Your task to perform on an android device: install app "Speedtest by Ookla" Image 0: 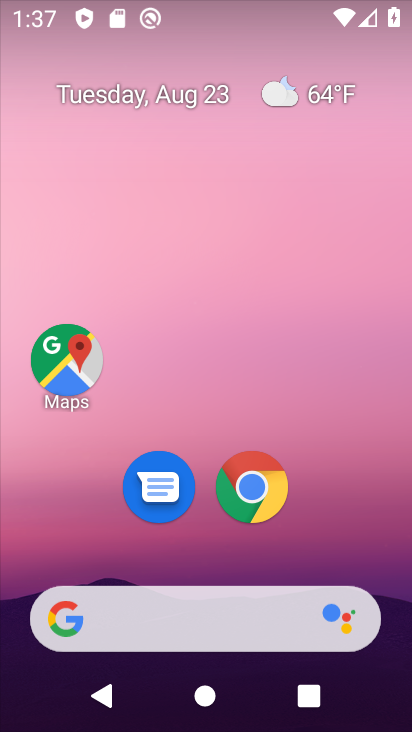
Step 0: drag from (179, 489) to (179, 50)
Your task to perform on an android device: install app "Speedtest by Ookla" Image 1: 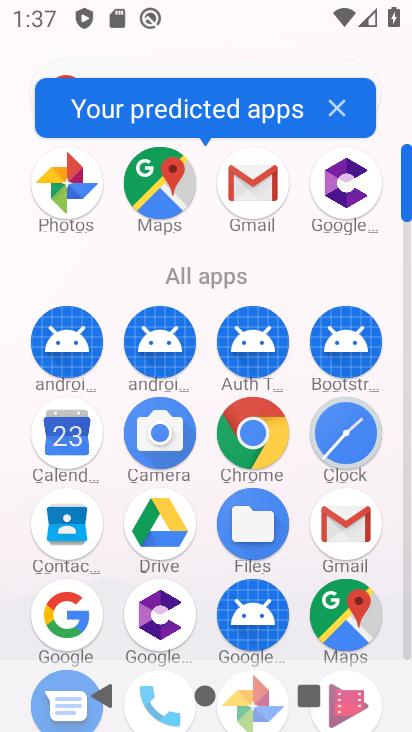
Step 1: drag from (192, 578) to (183, 179)
Your task to perform on an android device: install app "Speedtest by Ookla" Image 2: 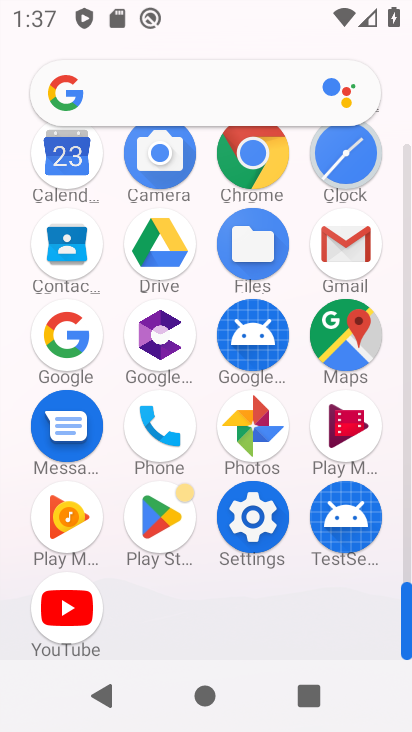
Step 2: click (160, 517)
Your task to perform on an android device: install app "Speedtest by Ookla" Image 3: 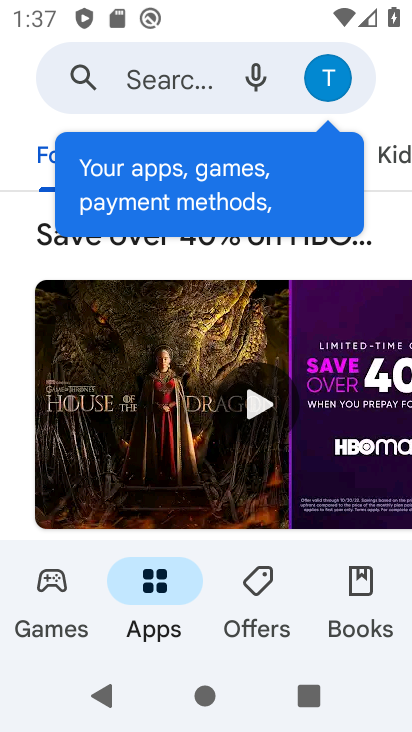
Step 3: click (163, 72)
Your task to perform on an android device: install app "Speedtest by Ookla" Image 4: 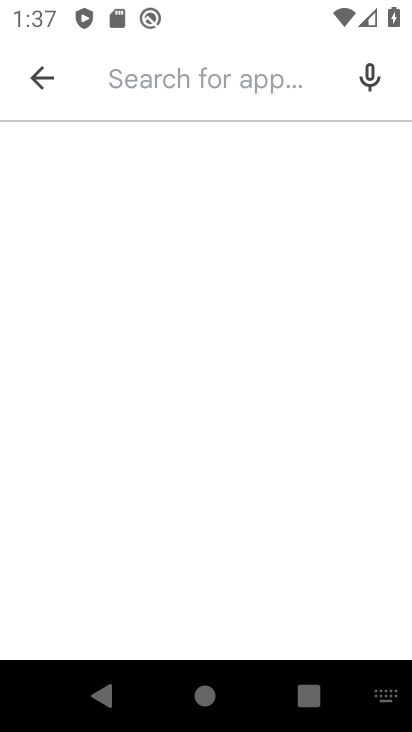
Step 4: type "Speedtest by Ookla "
Your task to perform on an android device: install app "Speedtest by Ookla" Image 5: 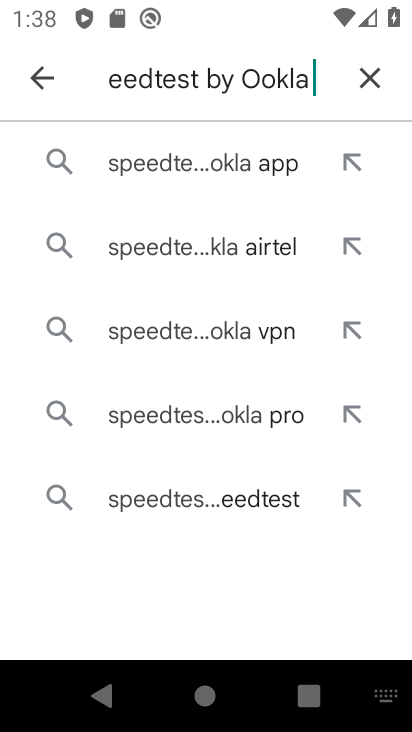
Step 5: click (157, 142)
Your task to perform on an android device: install app "Speedtest by Ookla" Image 6: 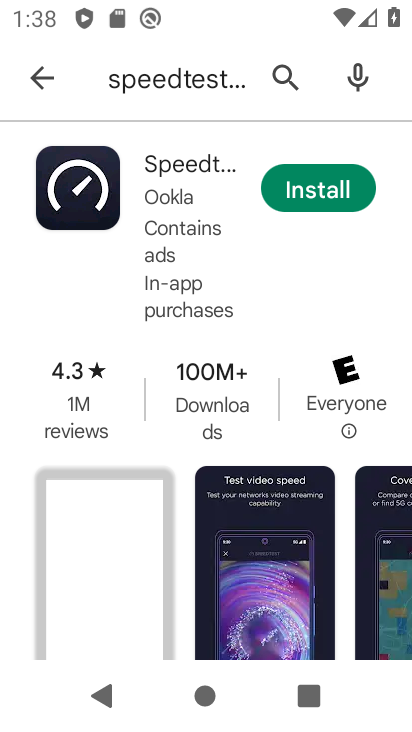
Step 6: click (331, 191)
Your task to perform on an android device: install app "Speedtest by Ookla" Image 7: 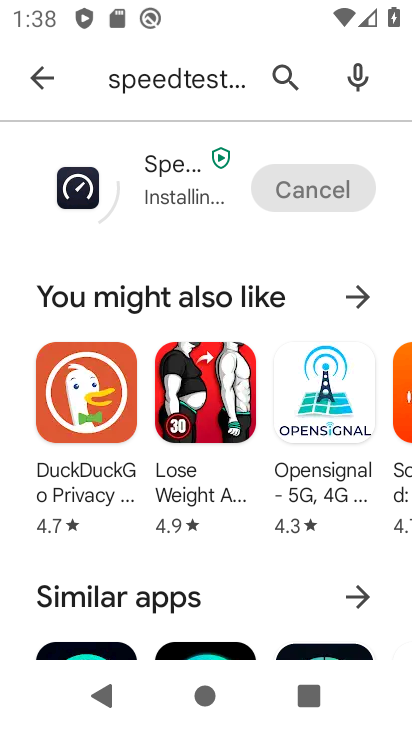
Step 7: task complete